Your task to perform on an android device: change the clock style Image 0: 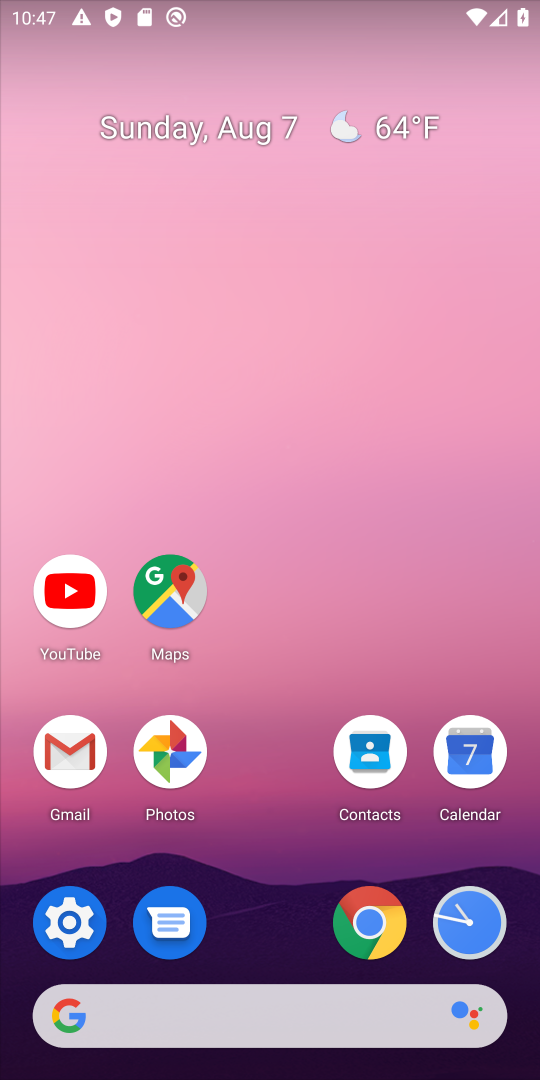
Step 0: click (472, 905)
Your task to perform on an android device: change the clock style Image 1: 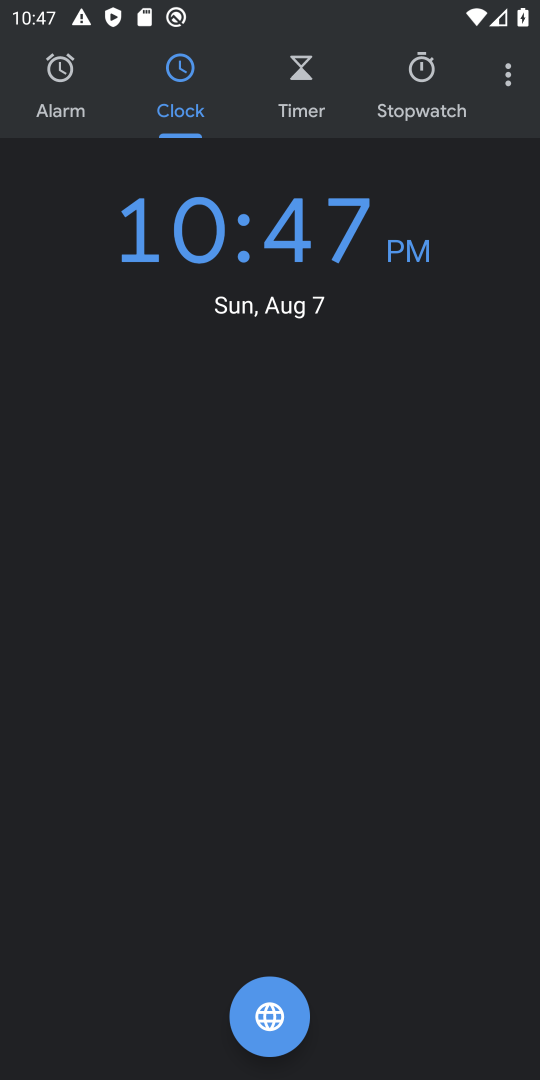
Step 1: click (510, 73)
Your task to perform on an android device: change the clock style Image 2: 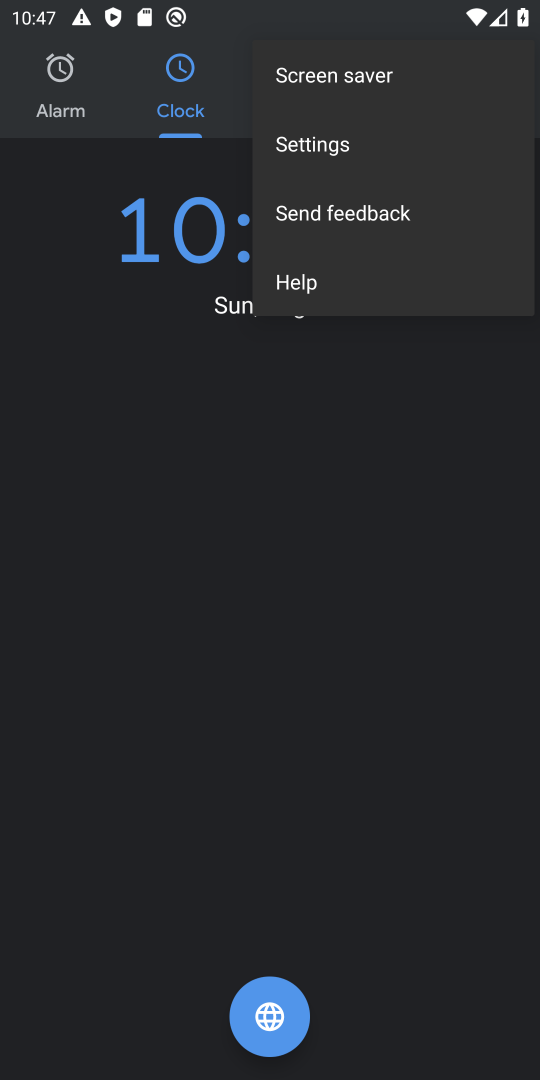
Step 2: click (332, 135)
Your task to perform on an android device: change the clock style Image 3: 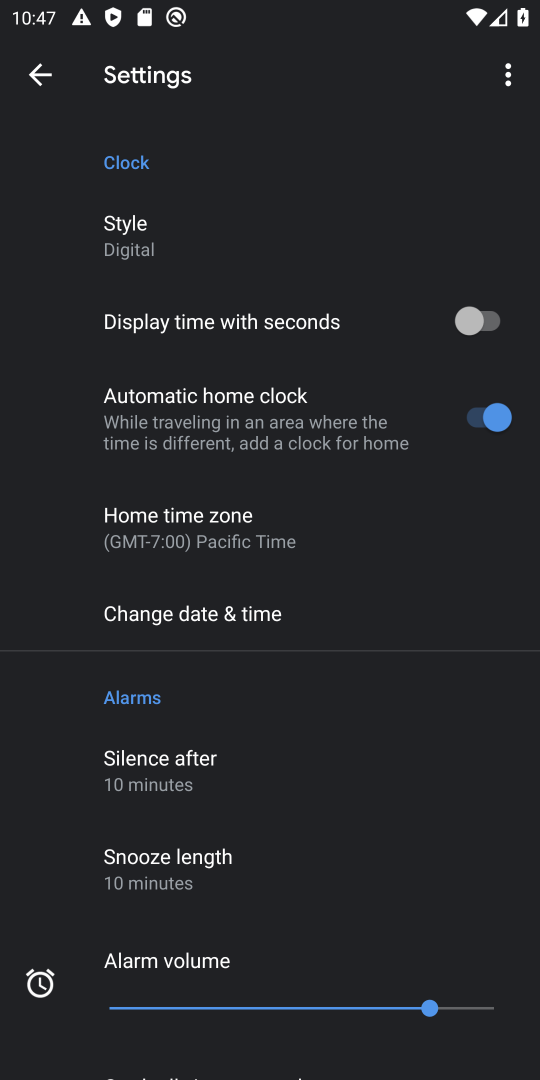
Step 3: click (138, 222)
Your task to perform on an android device: change the clock style Image 4: 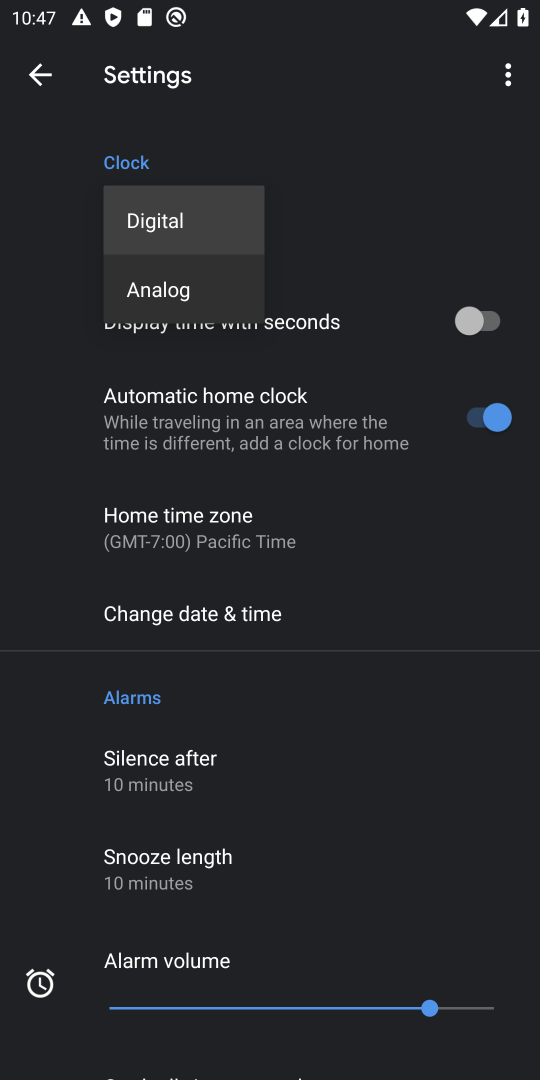
Step 4: click (153, 287)
Your task to perform on an android device: change the clock style Image 5: 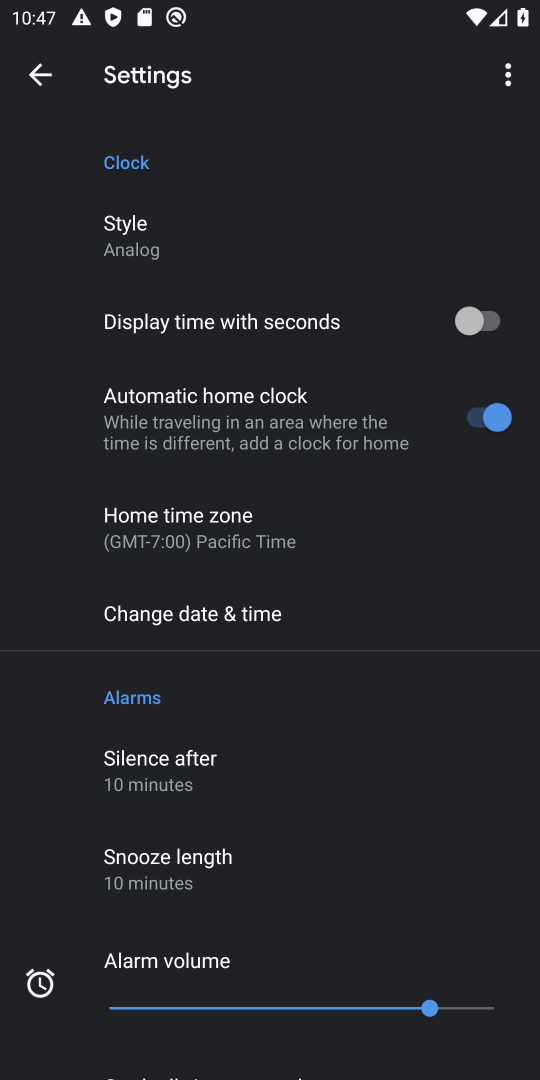
Step 5: task complete